Your task to perform on an android device: Turn on the flashlight Image 0: 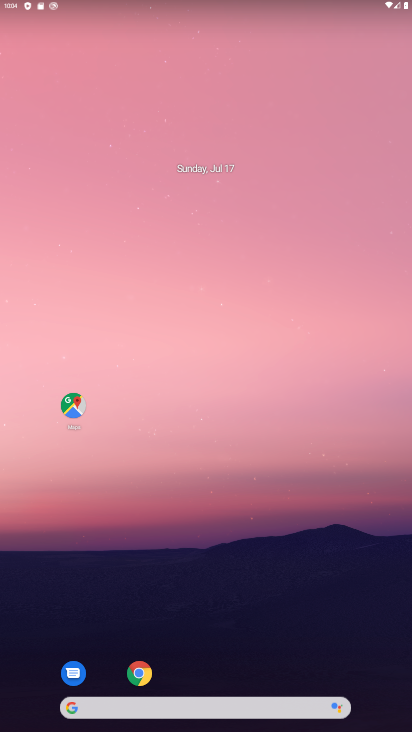
Step 0: drag from (312, 8) to (302, 488)
Your task to perform on an android device: Turn on the flashlight Image 1: 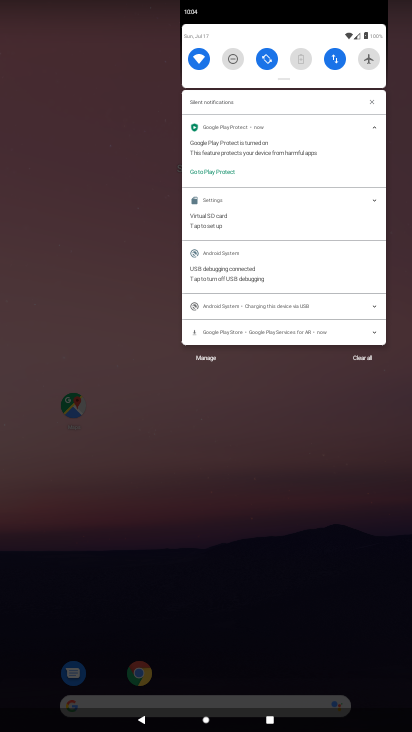
Step 1: task complete